Your task to perform on an android device: Show me popular games on the Play Store Image 0: 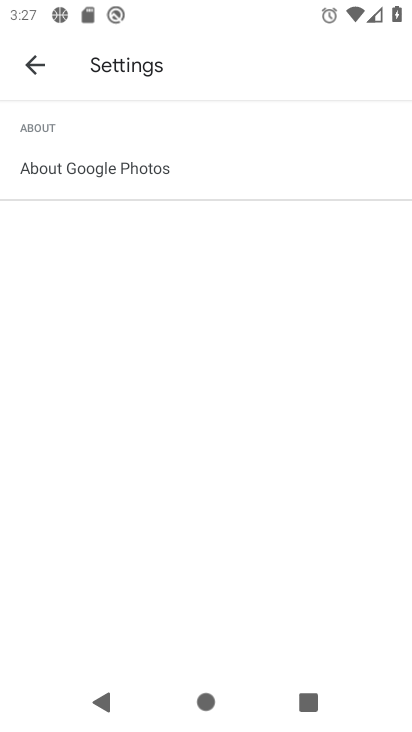
Step 0: press back button
Your task to perform on an android device: Show me popular games on the Play Store Image 1: 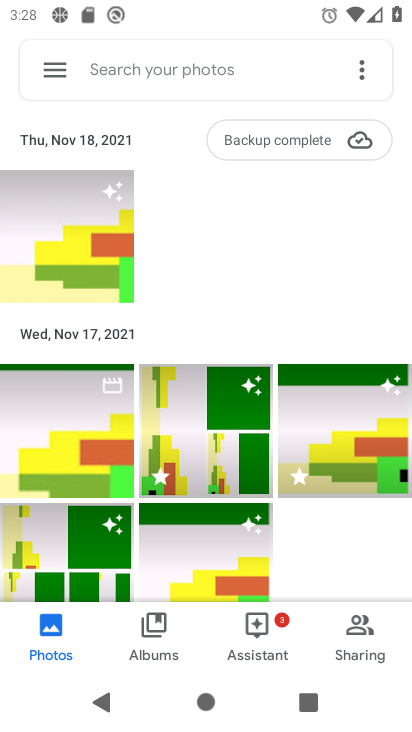
Step 1: press back button
Your task to perform on an android device: Show me popular games on the Play Store Image 2: 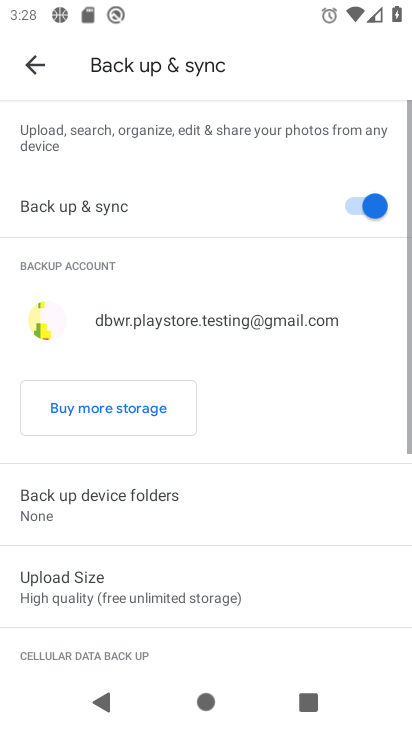
Step 2: press back button
Your task to perform on an android device: Show me popular games on the Play Store Image 3: 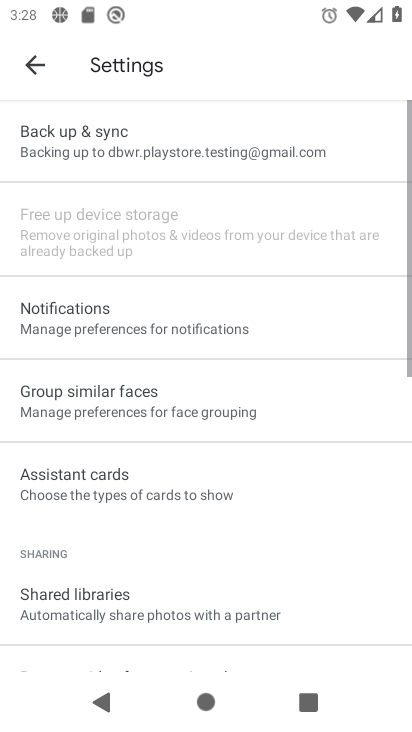
Step 3: press back button
Your task to perform on an android device: Show me popular games on the Play Store Image 4: 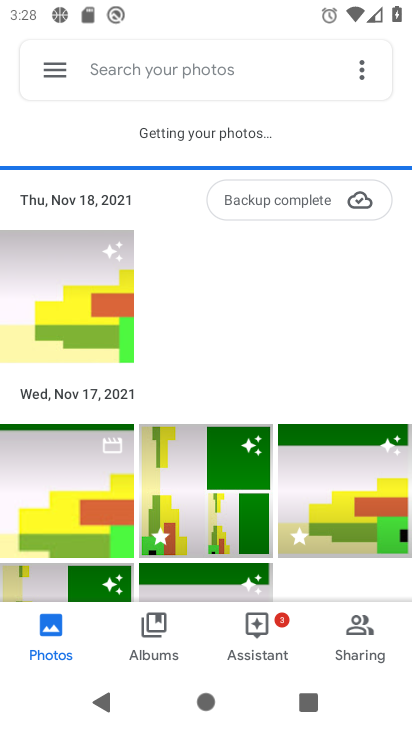
Step 4: press back button
Your task to perform on an android device: Show me popular games on the Play Store Image 5: 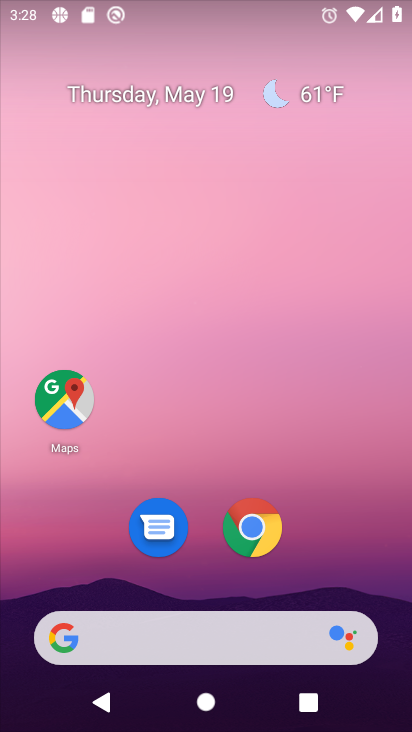
Step 5: drag from (243, 569) to (281, 2)
Your task to perform on an android device: Show me popular games on the Play Store Image 6: 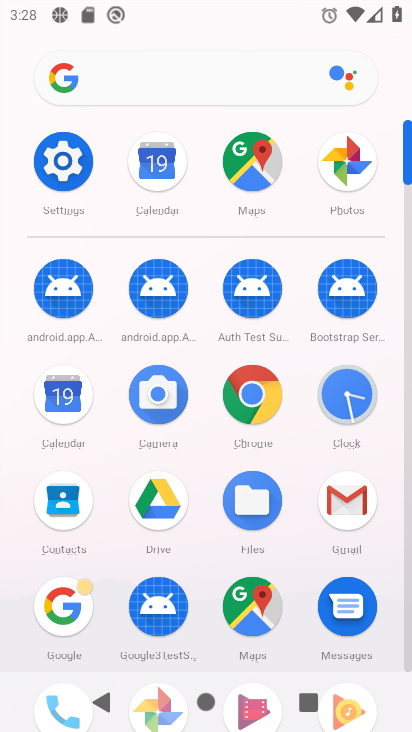
Step 6: drag from (195, 561) to (300, 80)
Your task to perform on an android device: Show me popular games on the Play Store Image 7: 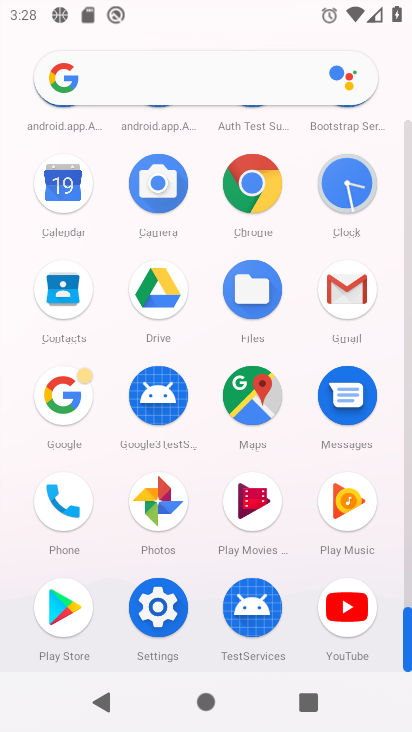
Step 7: click (56, 606)
Your task to perform on an android device: Show me popular games on the Play Store Image 8: 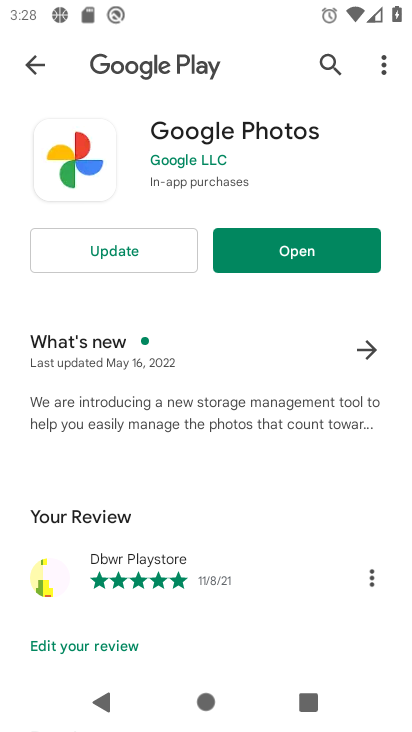
Step 8: click (30, 61)
Your task to perform on an android device: Show me popular games on the Play Store Image 9: 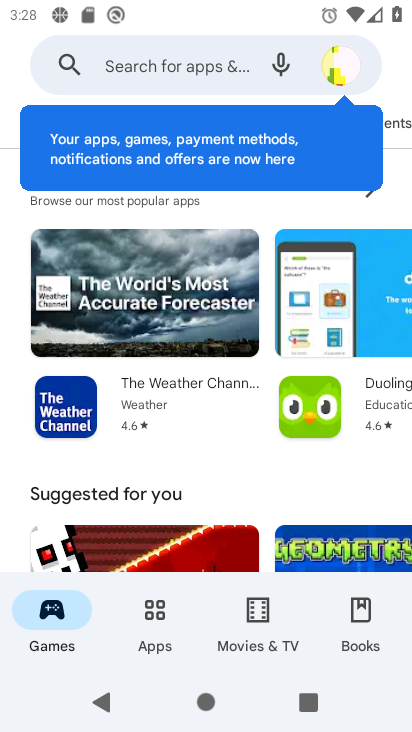
Step 9: drag from (195, 457) to (258, 36)
Your task to perform on an android device: Show me popular games on the Play Store Image 10: 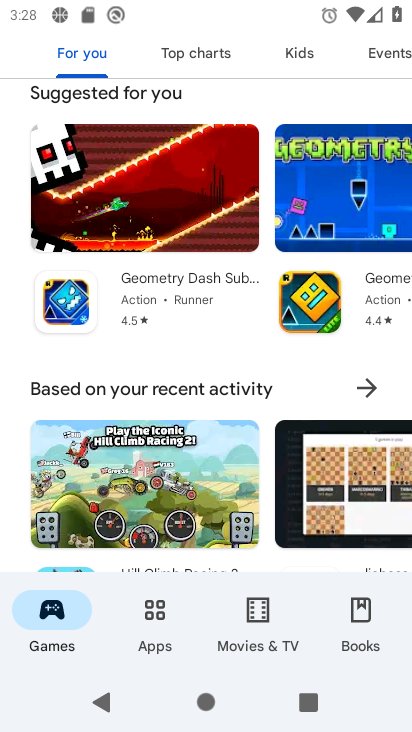
Step 10: drag from (260, 456) to (321, 26)
Your task to perform on an android device: Show me popular games on the Play Store Image 11: 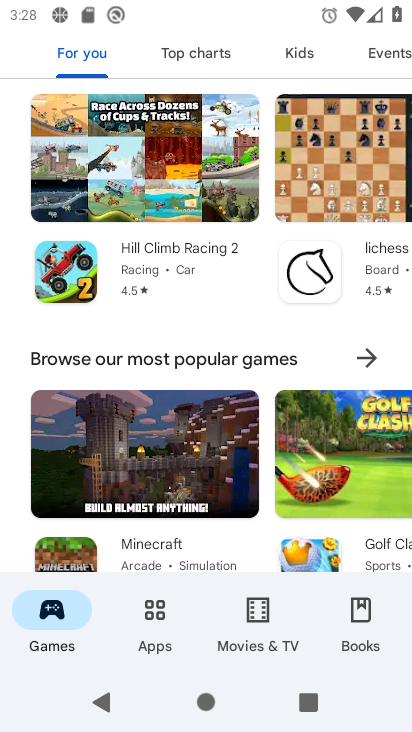
Step 11: click (370, 330)
Your task to perform on an android device: Show me popular games on the Play Store Image 12: 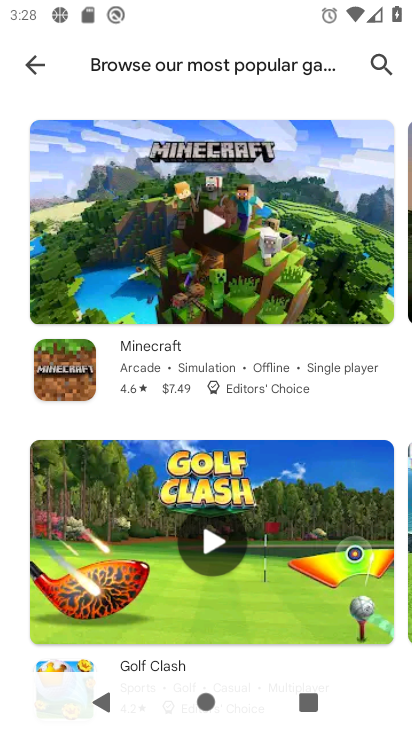
Step 12: task complete